Your task to perform on an android device: Go to location settings Image 0: 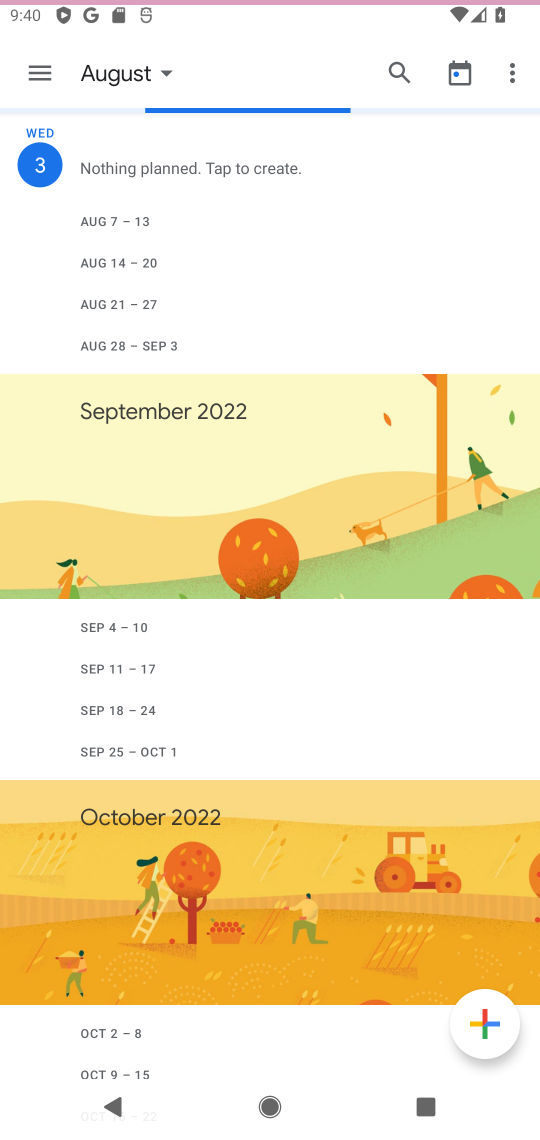
Step 0: press home button
Your task to perform on an android device: Go to location settings Image 1: 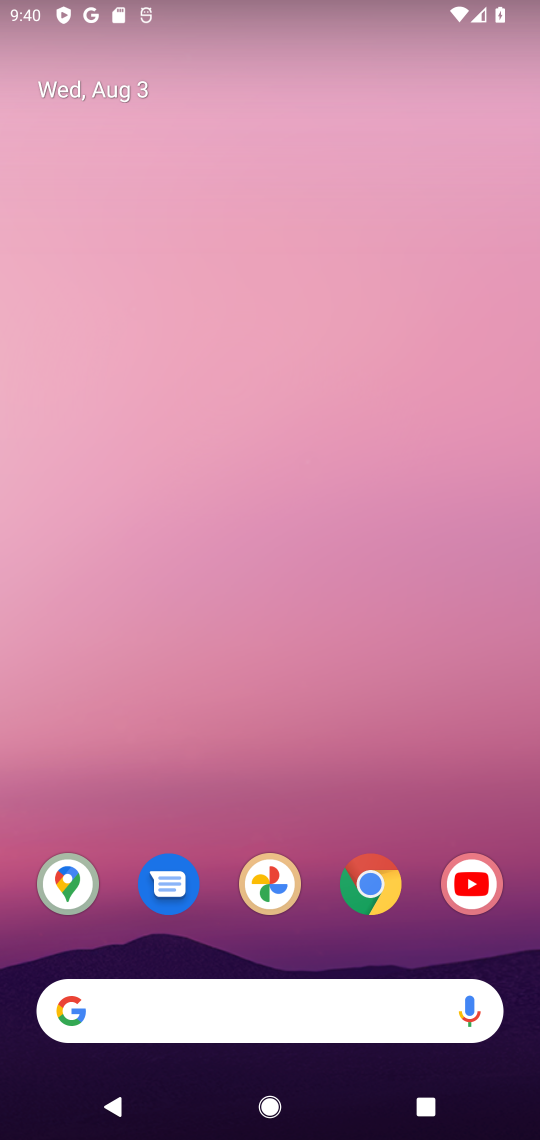
Step 1: drag from (201, 858) to (217, 206)
Your task to perform on an android device: Go to location settings Image 2: 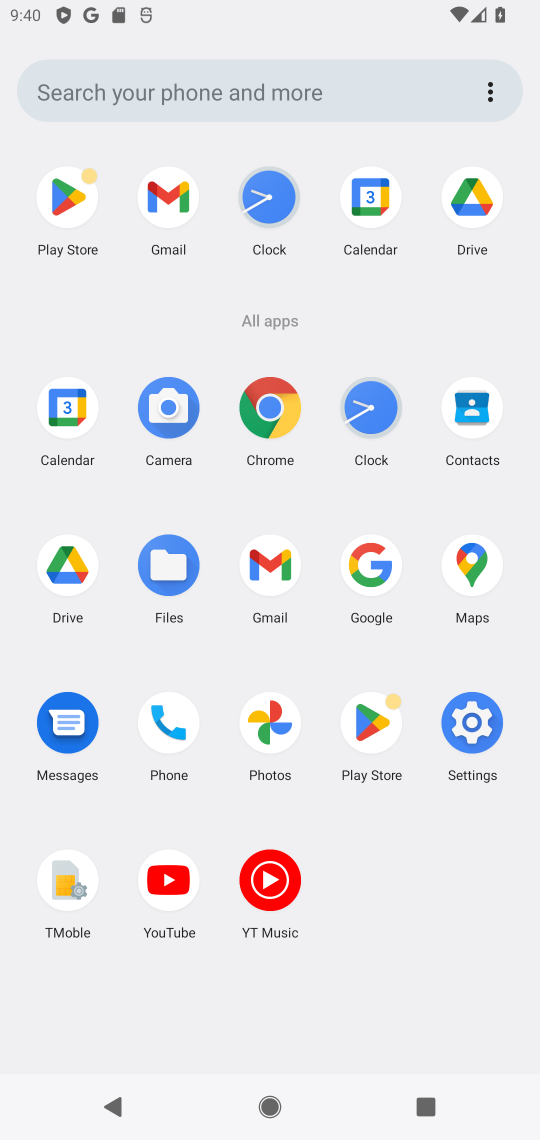
Step 2: click (472, 724)
Your task to perform on an android device: Go to location settings Image 3: 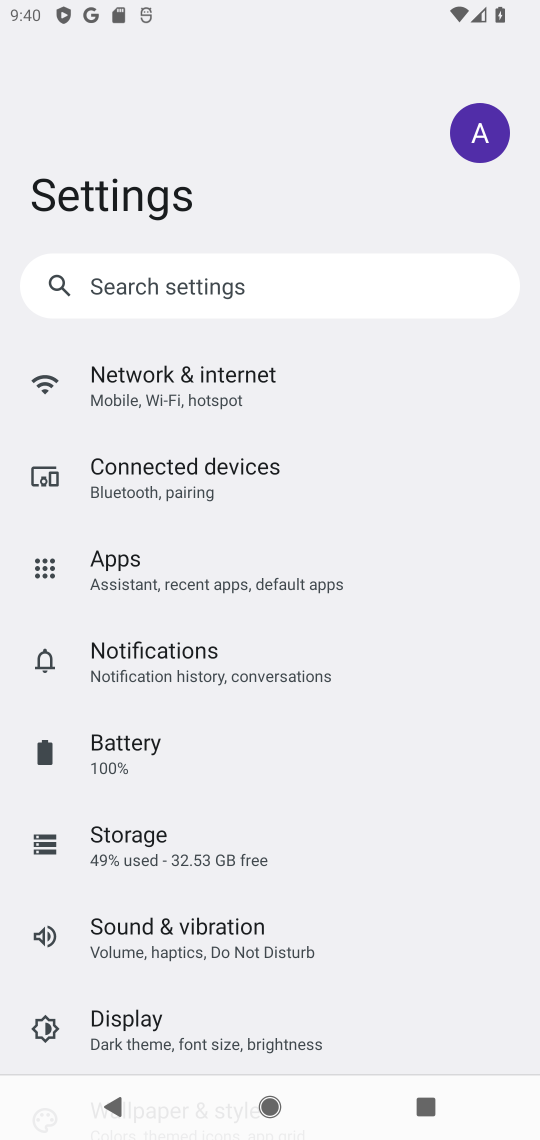
Step 3: drag from (370, 985) to (319, 367)
Your task to perform on an android device: Go to location settings Image 4: 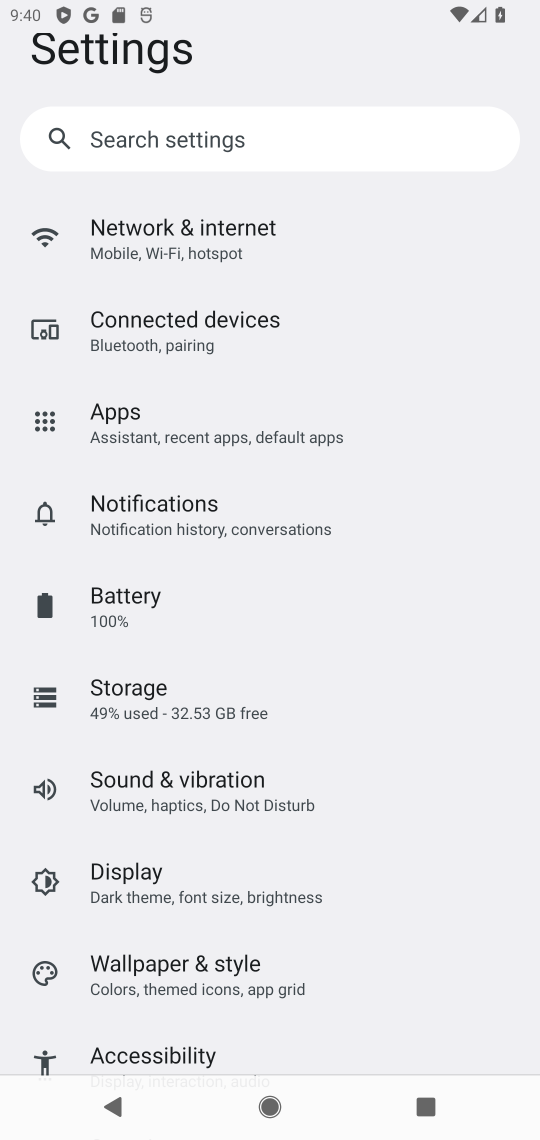
Step 4: drag from (453, 843) to (538, 226)
Your task to perform on an android device: Go to location settings Image 5: 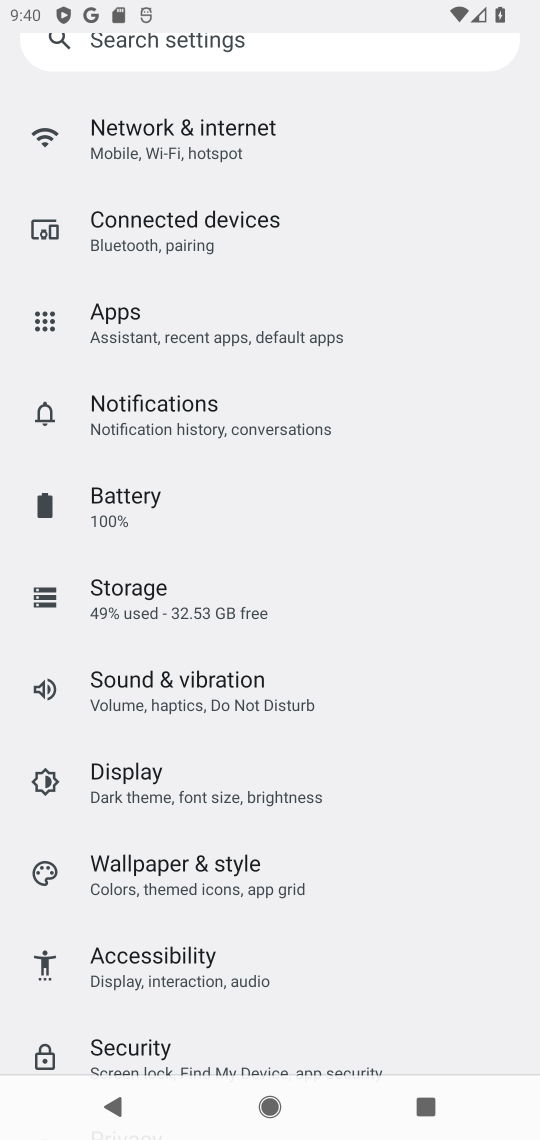
Step 5: drag from (404, 928) to (420, 199)
Your task to perform on an android device: Go to location settings Image 6: 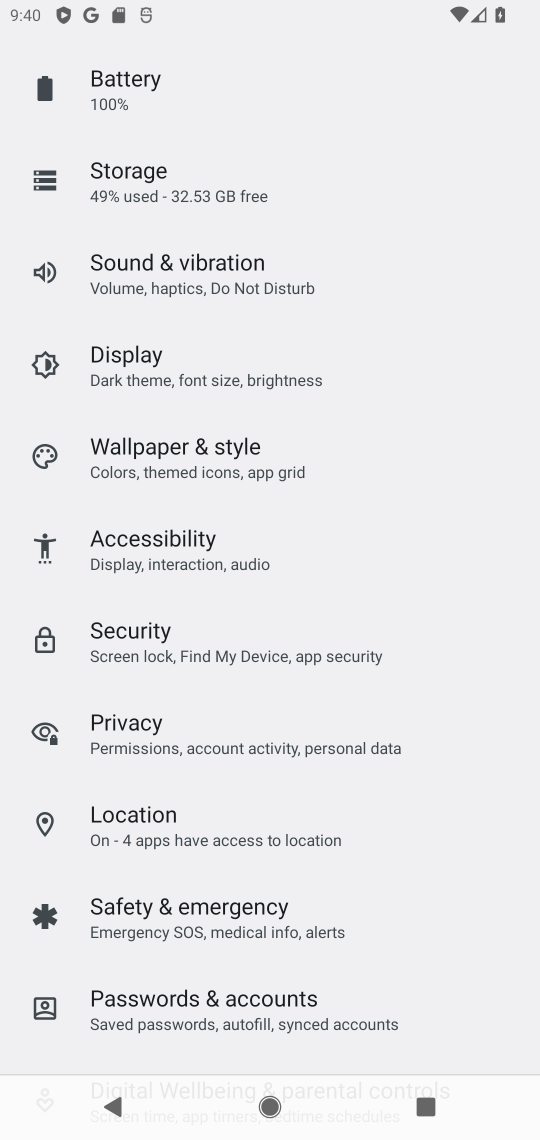
Step 6: click (141, 832)
Your task to perform on an android device: Go to location settings Image 7: 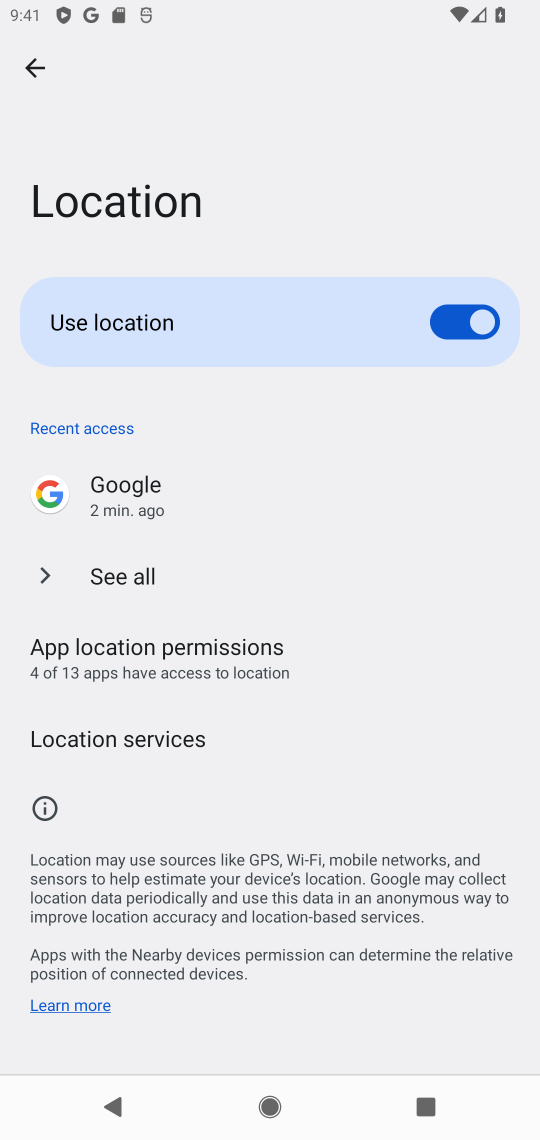
Step 7: task complete